Your task to perform on an android device: check storage Image 0: 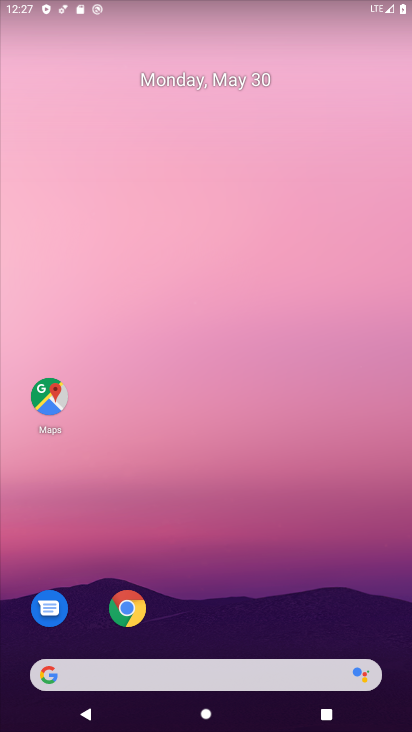
Step 0: drag from (218, 641) to (347, 25)
Your task to perform on an android device: check storage Image 1: 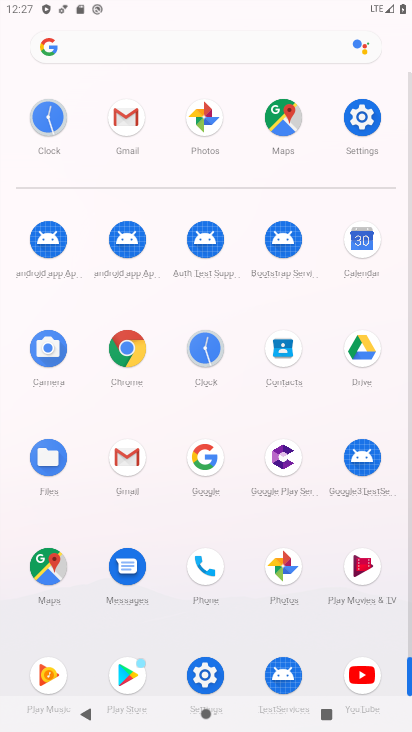
Step 1: click (199, 665)
Your task to perform on an android device: check storage Image 2: 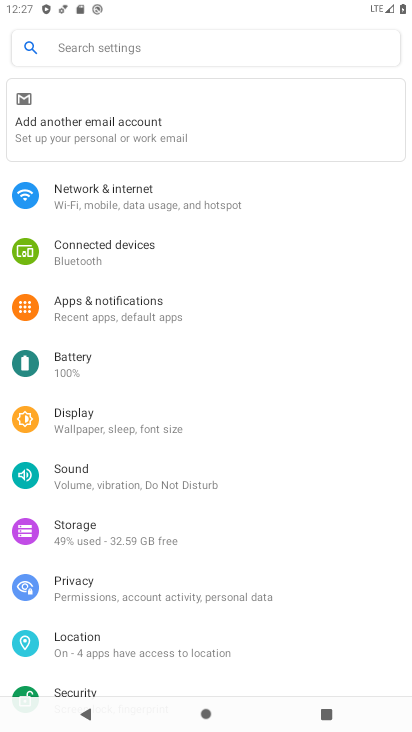
Step 2: click (147, 536)
Your task to perform on an android device: check storage Image 3: 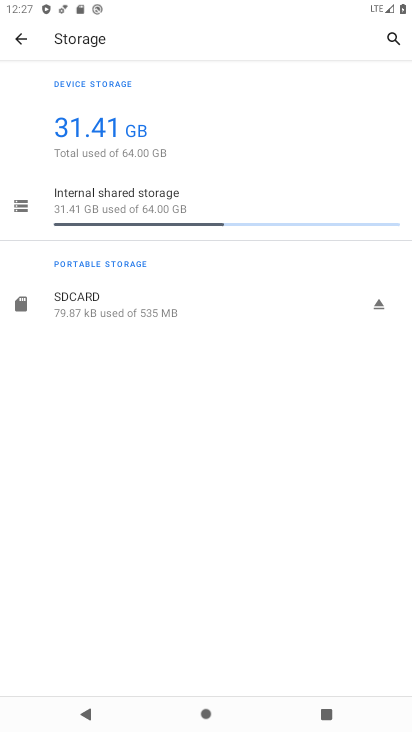
Step 3: click (239, 222)
Your task to perform on an android device: check storage Image 4: 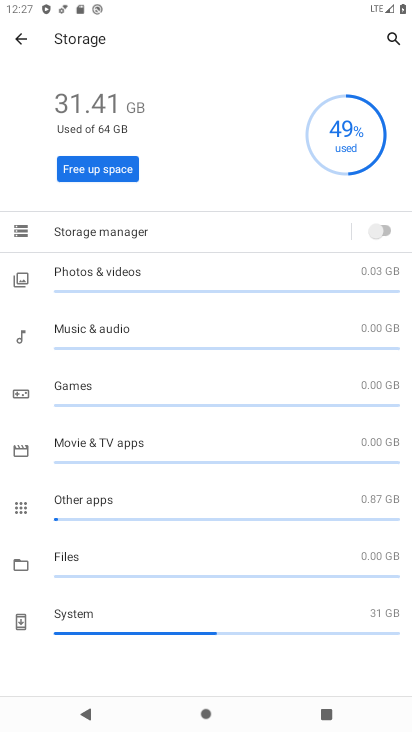
Step 4: task complete